Your task to perform on an android device: What is the recent news? Image 0: 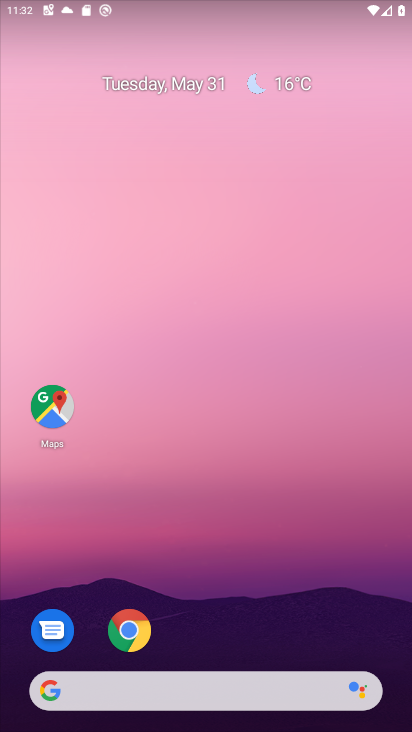
Step 0: click (126, 623)
Your task to perform on an android device: What is the recent news? Image 1: 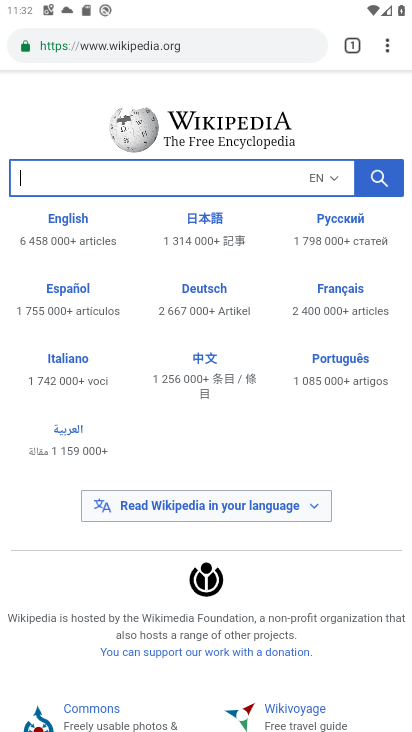
Step 1: click (192, 60)
Your task to perform on an android device: What is the recent news? Image 2: 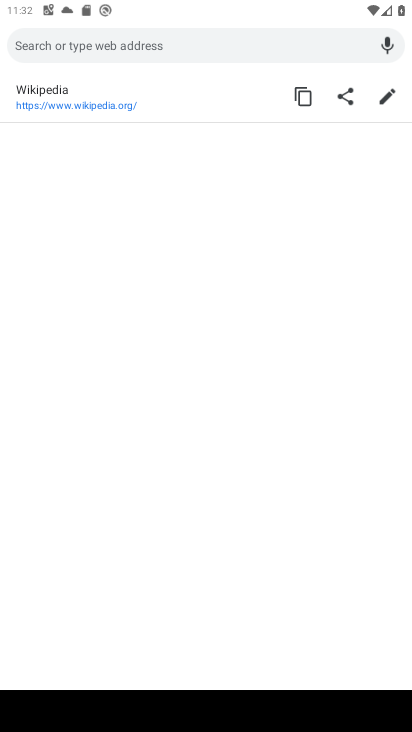
Step 2: type "news"
Your task to perform on an android device: What is the recent news? Image 3: 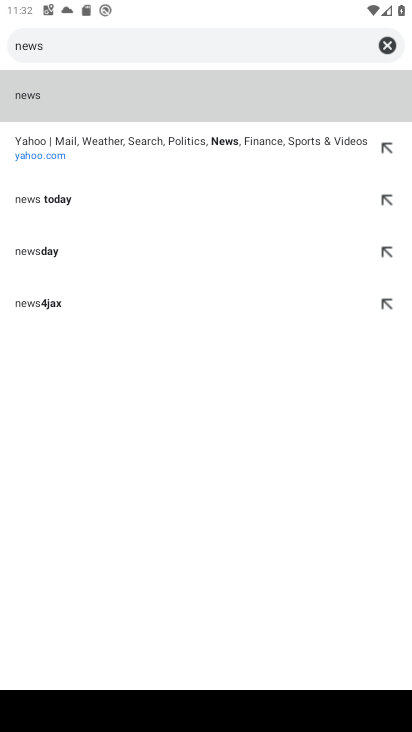
Step 3: click (35, 86)
Your task to perform on an android device: What is the recent news? Image 4: 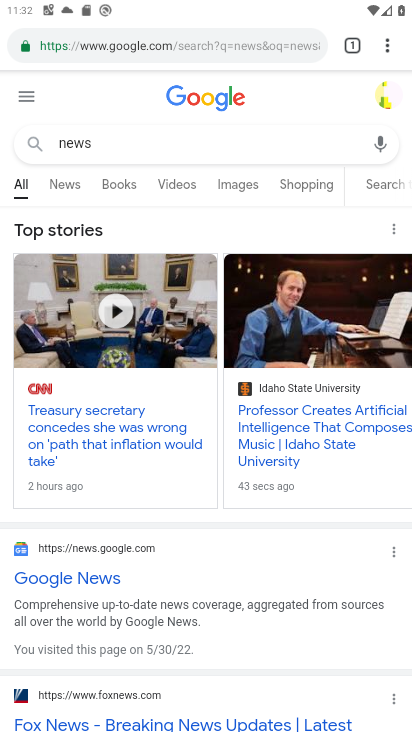
Step 4: click (70, 188)
Your task to perform on an android device: What is the recent news? Image 5: 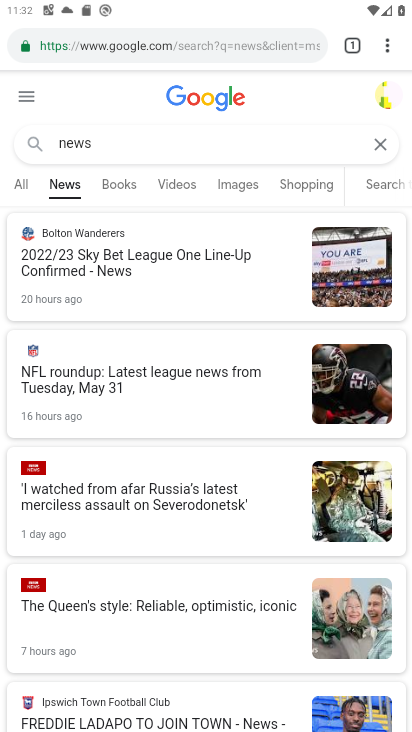
Step 5: task complete